Your task to perform on an android device: When is my next appointment? Image 0: 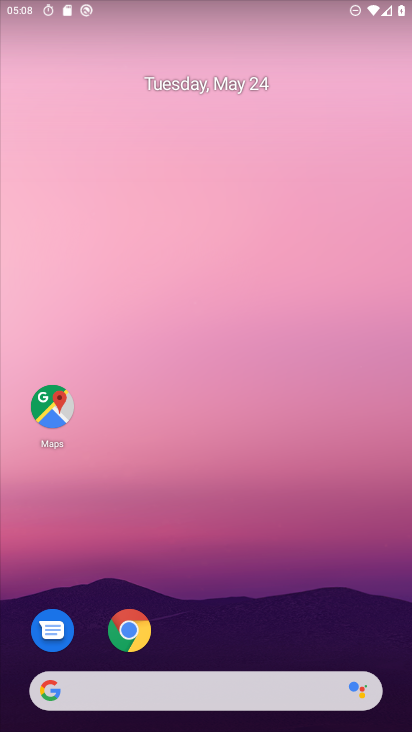
Step 0: click (166, 84)
Your task to perform on an android device: When is my next appointment? Image 1: 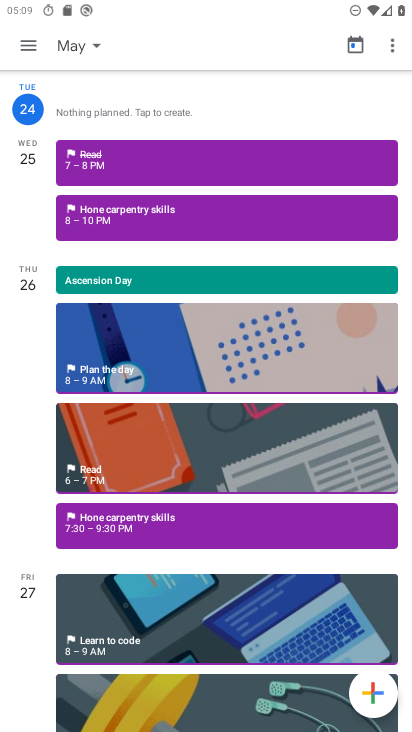
Step 1: task complete